Your task to perform on an android device: toggle pop-ups in chrome Image 0: 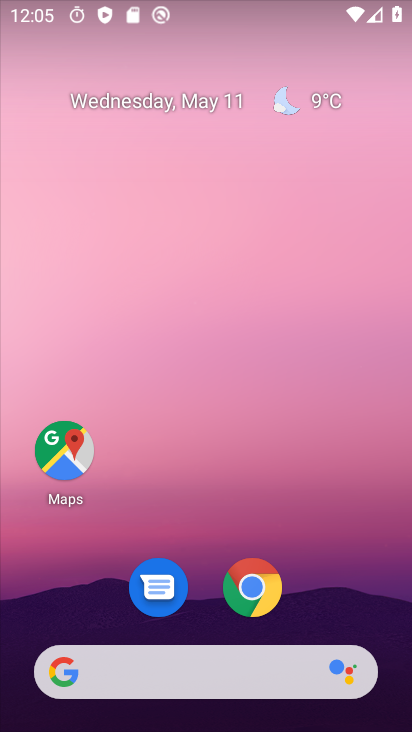
Step 0: drag from (386, 703) to (264, 133)
Your task to perform on an android device: toggle pop-ups in chrome Image 1: 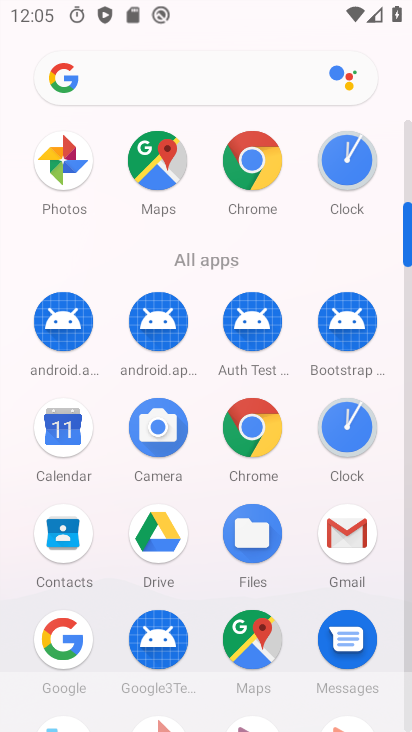
Step 1: click (246, 163)
Your task to perform on an android device: toggle pop-ups in chrome Image 2: 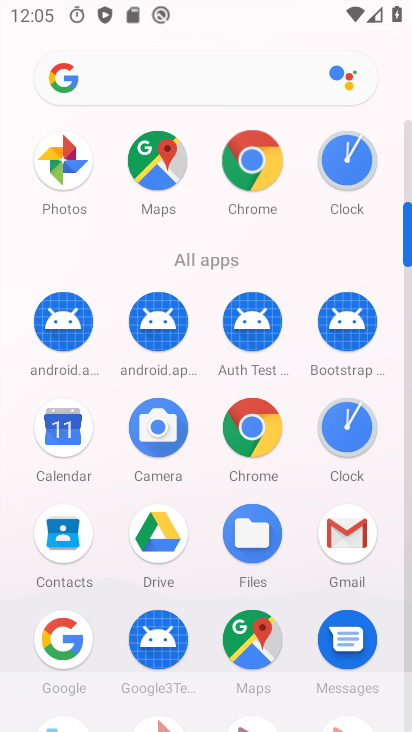
Step 2: click (246, 163)
Your task to perform on an android device: toggle pop-ups in chrome Image 3: 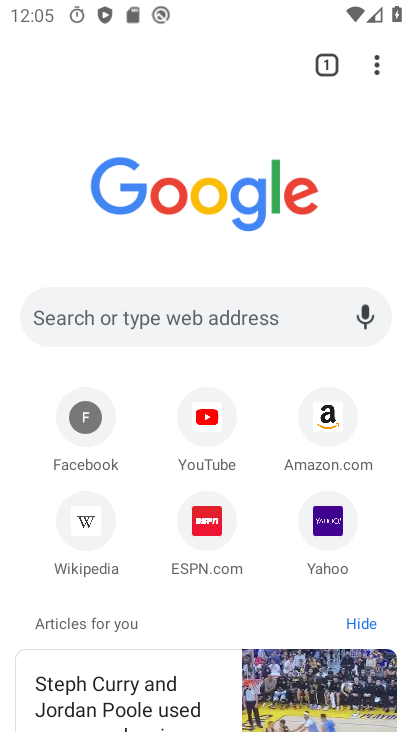
Step 3: drag from (372, 56) to (116, 546)
Your task to perform on an android device: toggle pop-ups in chrome Image 4: 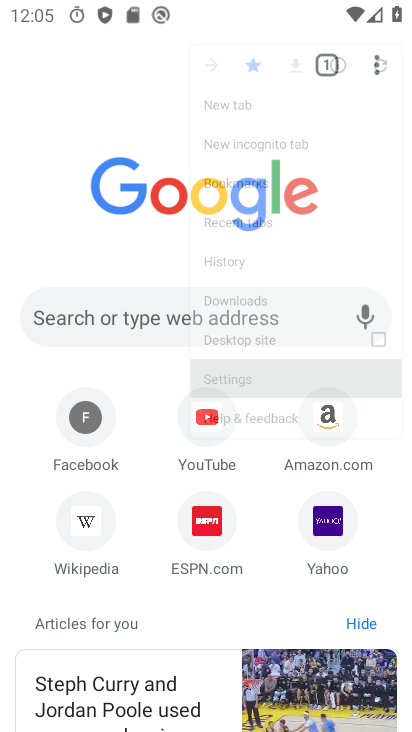
Step 4: click (116, 546)
Your task to perform on an android device: toggle pop-ups in chrome Image 5: 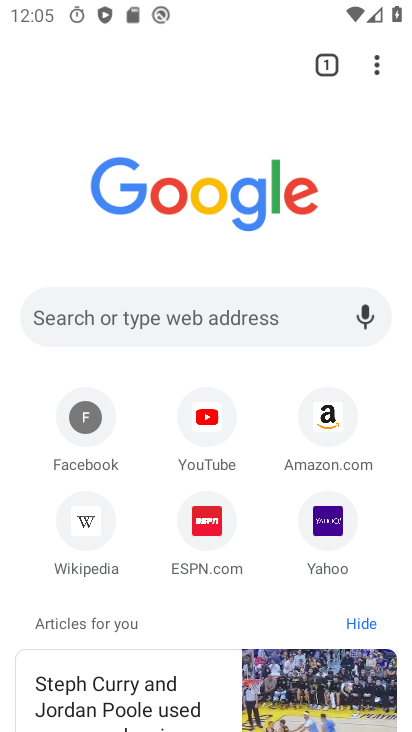
Step 5: click (116, 546)
Your task to perform on an android device: toggle pop-ups in chrome Image 6: 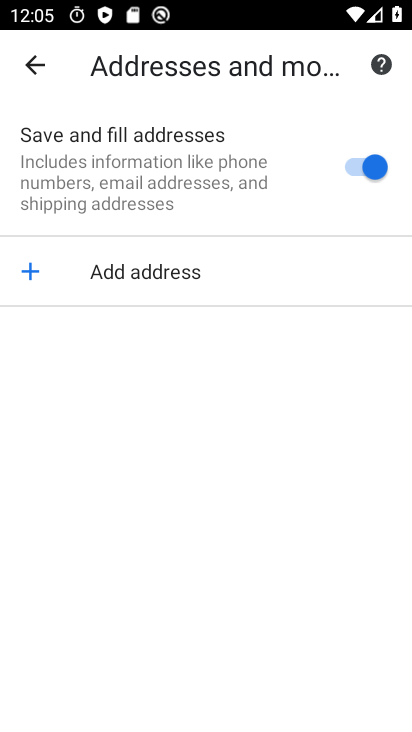
Step 6: click (36, 63)
Your task to perform on an android device: toggle pop-ups in chrome Image 7: 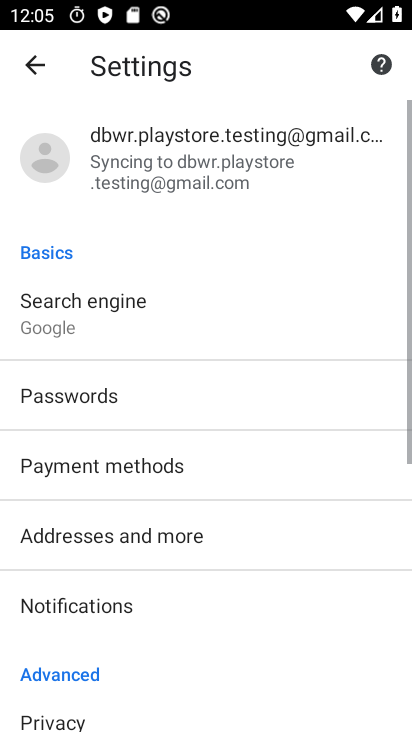
Step 7: drag from (219, 536) to (153, 85)
Your task to perform on an android device: toggle pop-ups in chrome Image 8: 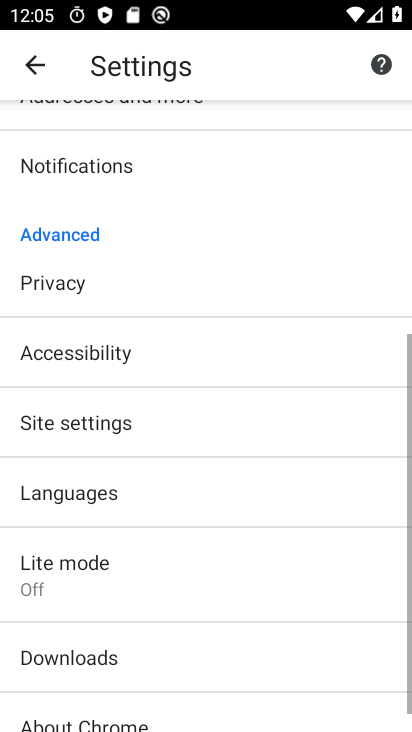
Step 8: drag from (222, 474) to (222, 109)
Your task to perform on an android device: toggle pop-ups in chrome Image 9: 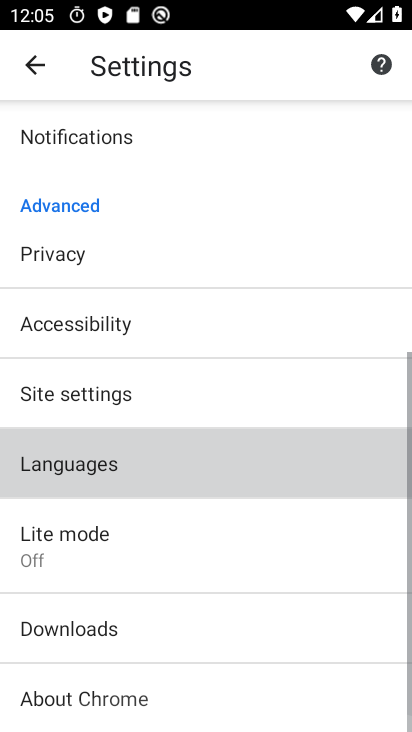
Step 9: drag from (203, 478) to (203, 197)
Your task to perform on an android device: toggle pop-ups in chrome Image 10: 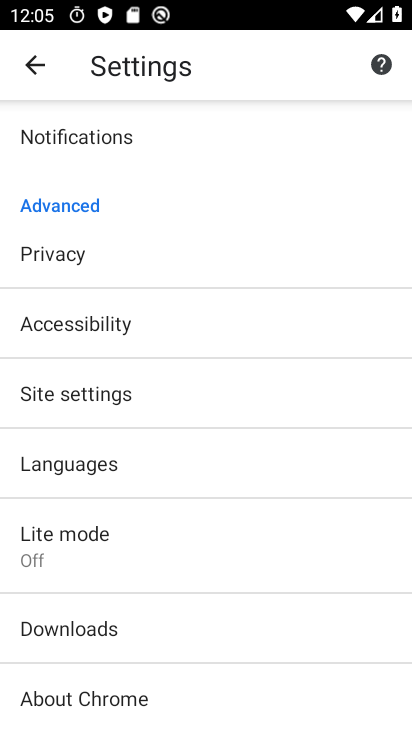
Step 10: click (61, 392)
Your task to perform on an android device: toggle pop-ups in chrome Image 11: 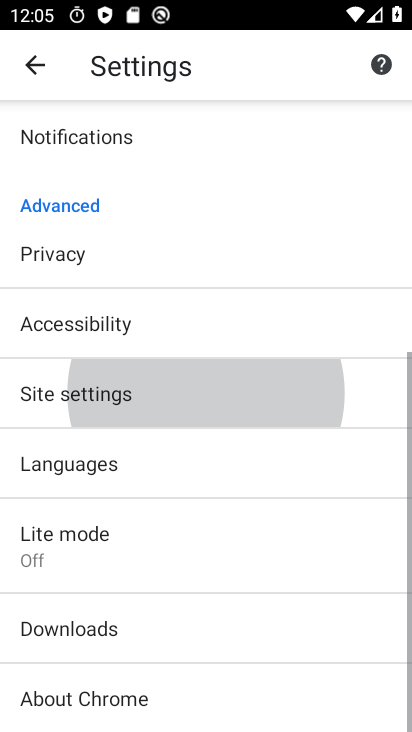
Step 11: click (61, 392)
Your task to perform on an android device: toggle pop-ups in chrome Image 12: 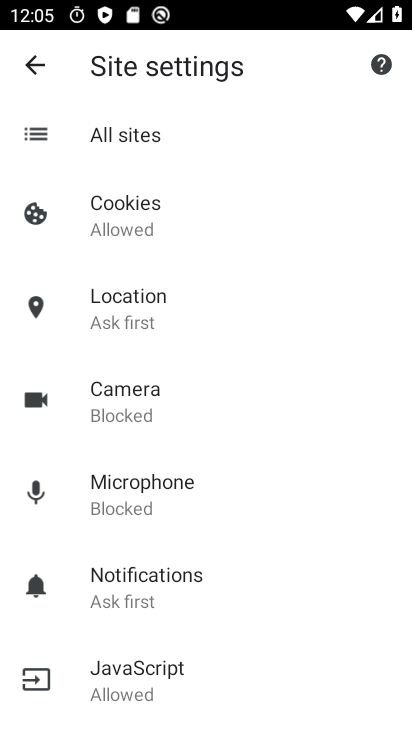
Step 12: drag from (194, 558) to (175, 203)
Your task to perform on an android device: toggle pop-ups in chrome Image 13: 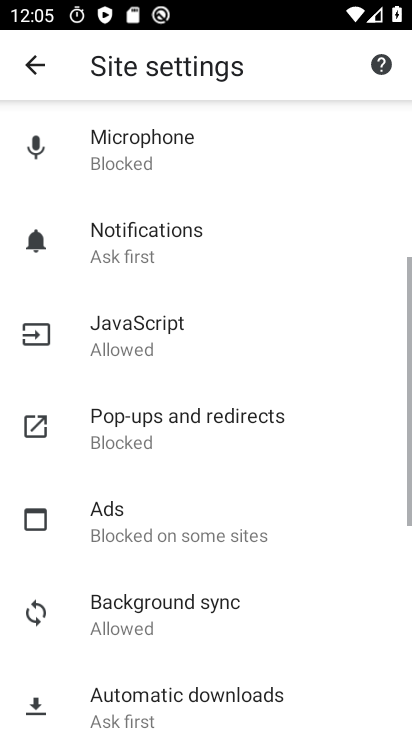
Step 13: drag from (205, 453) to (206, 192)
Your task to perform on an android device: toggle pop-ups in chrome Image 14: 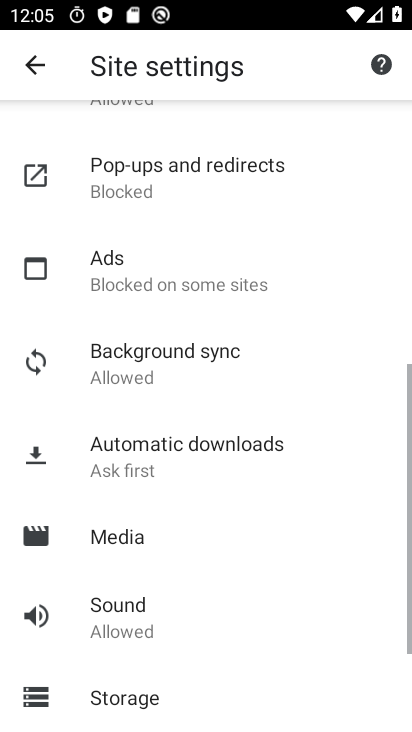
Step 14: click (159, 162)
Your task to perform on an android device: toggle pop-ups in chrome Image 15: 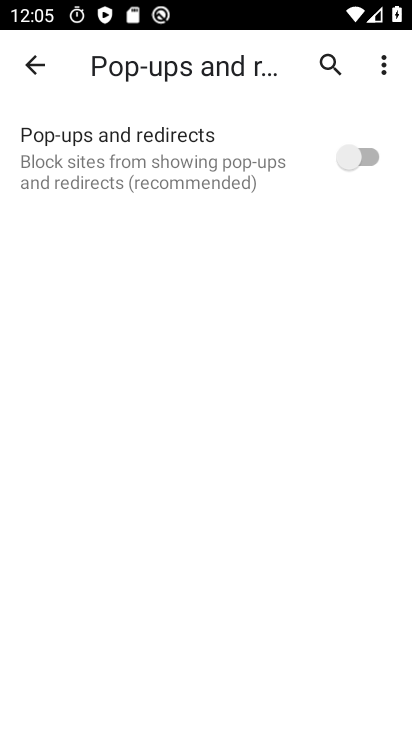
Step 15: click (348, 156)
Your task to perform on an android device: toggle pop-ups in chrome Image 16: 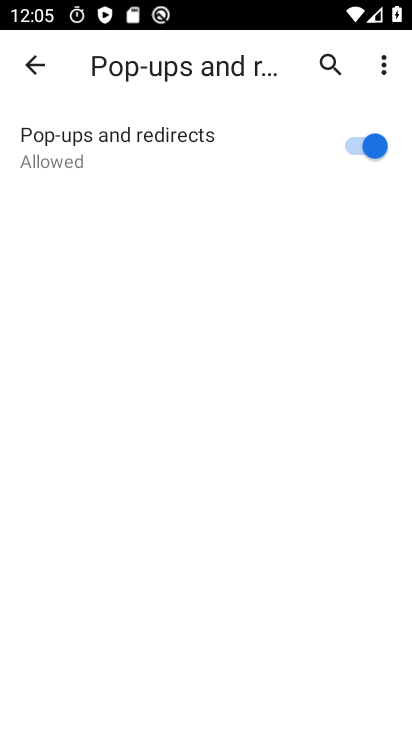
Step 16: task complete